Your task to perform on an android device: open chrome and create a bookmark for the current page Image 0: 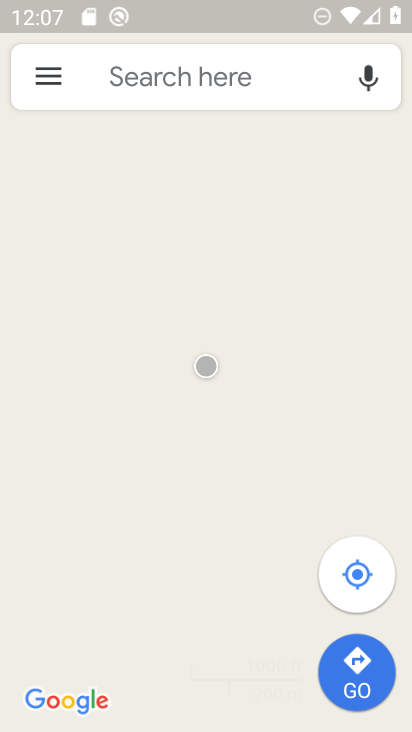
Step 0: press home button
Your task to perform on an android device: open chrome and create a bookmark for the current page Image 1: 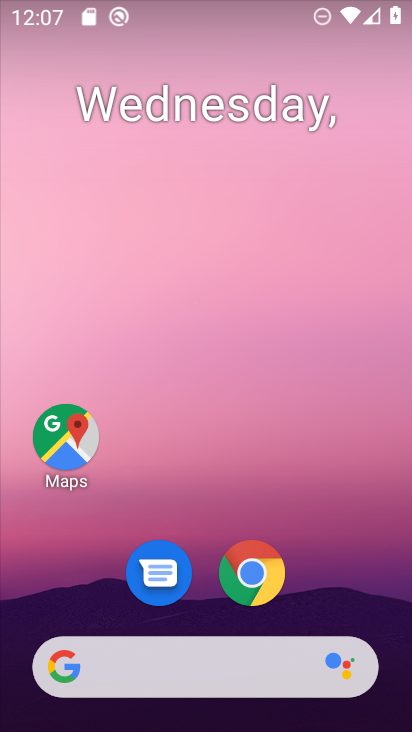
Step 1: drag from (346, 506) to (315, 251)
Your task to perform on an android device: open chrome and create a bookmark for the current page Image 2: 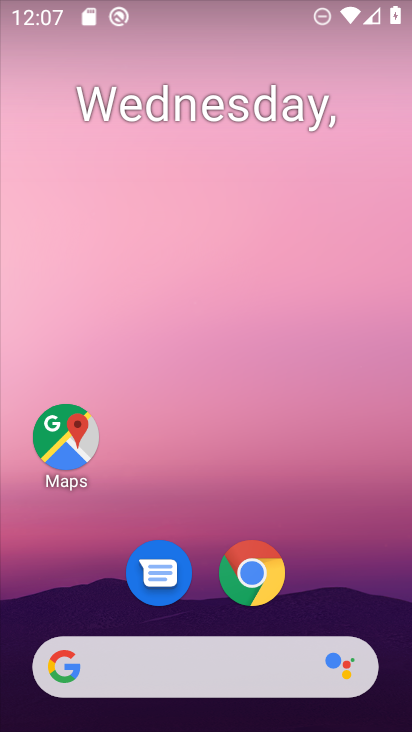
Step 2: drag from (322, 588) to (272, 210)
Your task to perform on an android device: open chrome and create a bookmark for the current page Image 3: 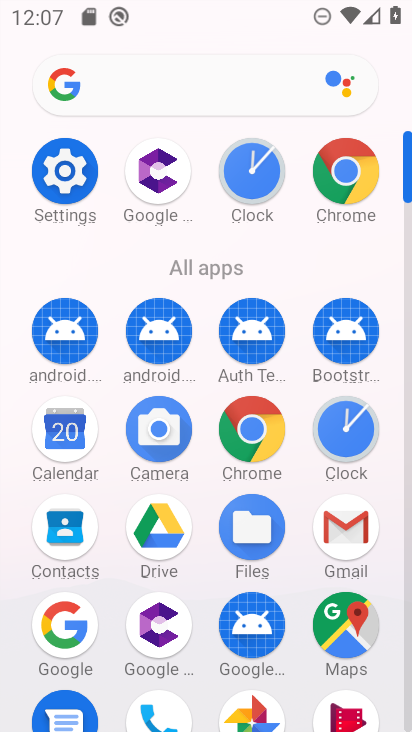
Step 3: click (338, 184)
Your task to perform on an android device: open chrome and create a bookmark for the current page Image 4: 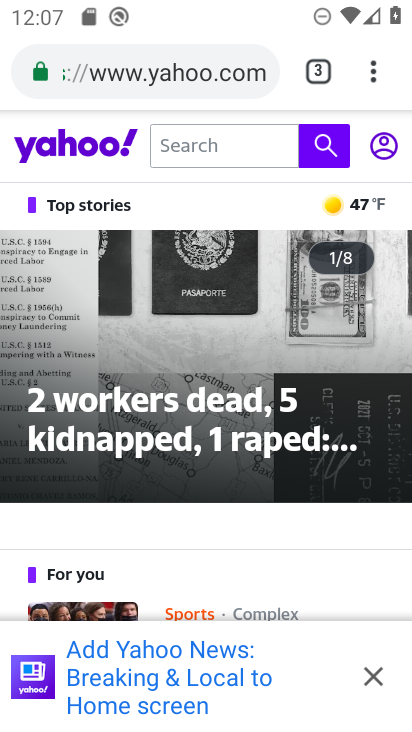
Step 4: task complete